Your task to perform on an android device: Open notification settings Image 0: 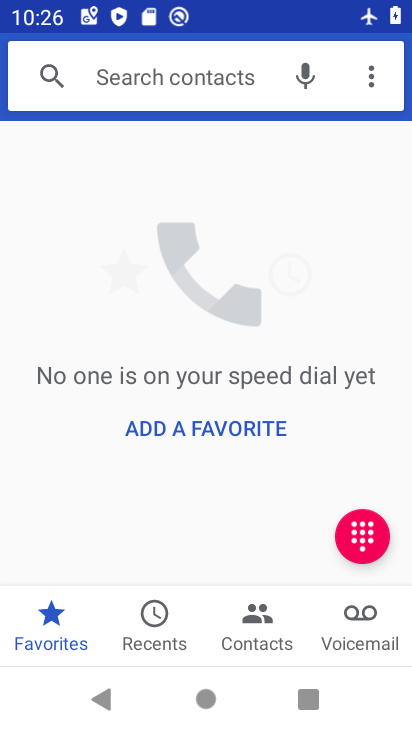
Step 0: press home button
Your task to perform on an android device: Open notification settings Image 1: 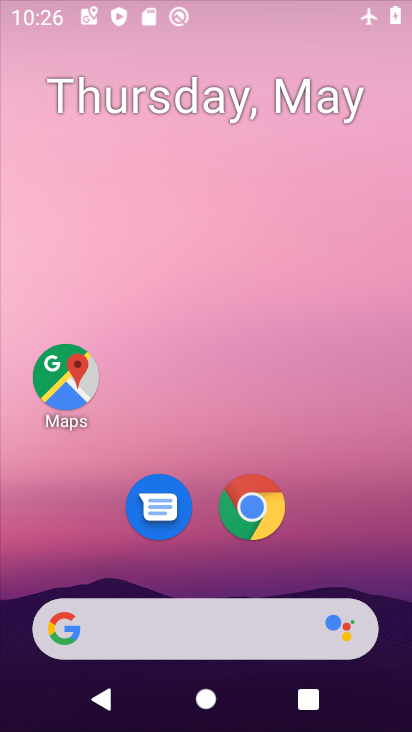
Step 1: drag from (158, 670) to (160, 102)
Your task to perform on an android device: Open notification settings Image 2: 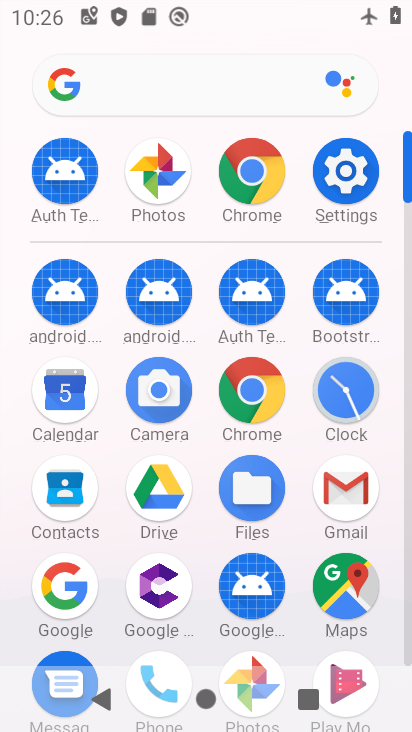
Step 2: click (363, 179)
Your task to perform on an android device: Open notification settings Image 3: 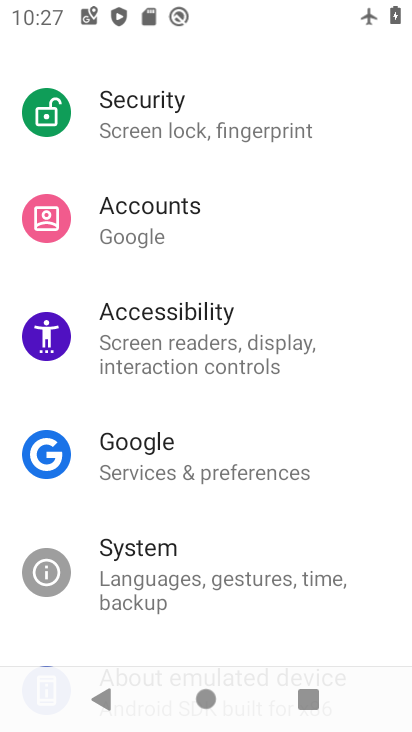
Step 3: drag from (179, 268) to (173, 487)
Your task to perform on an android device: Open notification settings Image 4: 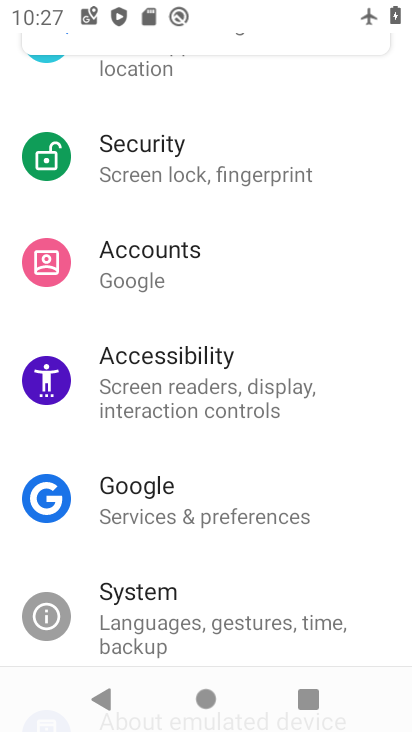
Step 4: drag from (192, 520) to (192, 128)
Your task to perform on an android device: Open notification settings Image 5: 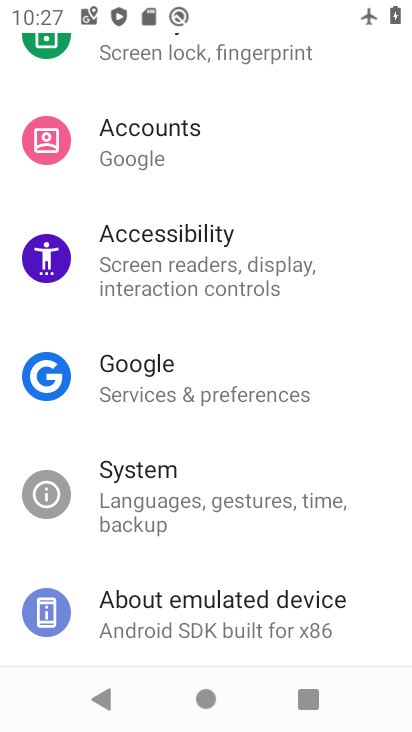
Step 5: drag from (191, 170) to (174, 693)
Your task to perform on an android device: Open notification settings Image 6: 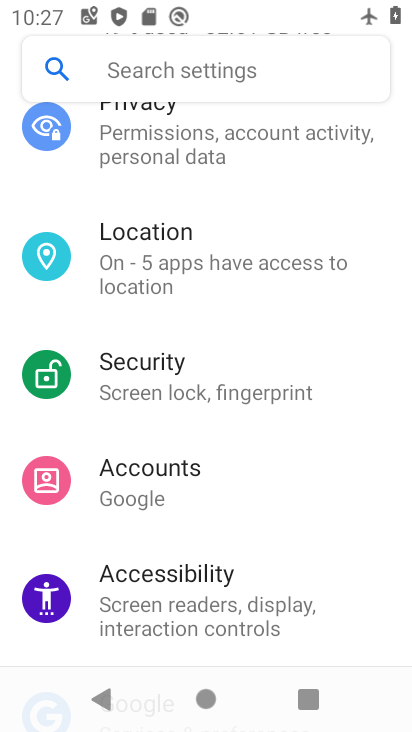
Step 6: drag from (266, 340) to (257, 718)
Your task to perform on an android device: Open notification settings Image 7: 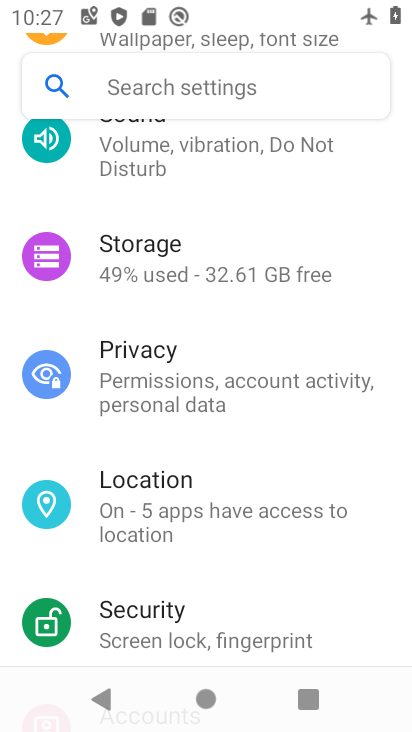
Step 7: drag from (246, 288) to (258, 730)
Your task to perform on an android device: Open notification settings Image 8: 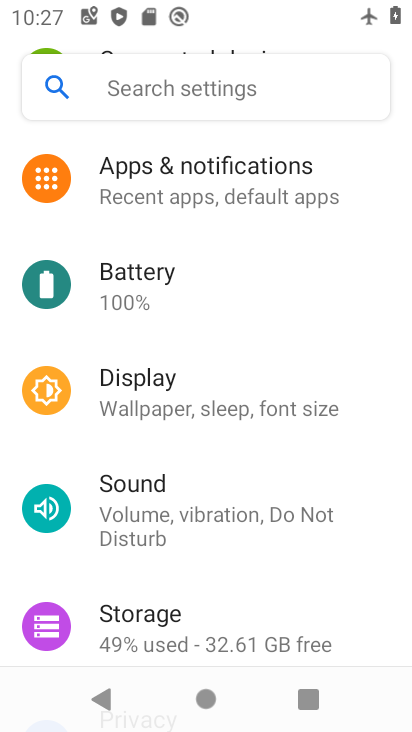
Step 8: click (267, 180)
Your task to perform on an android device: Open notification settings Image 9: 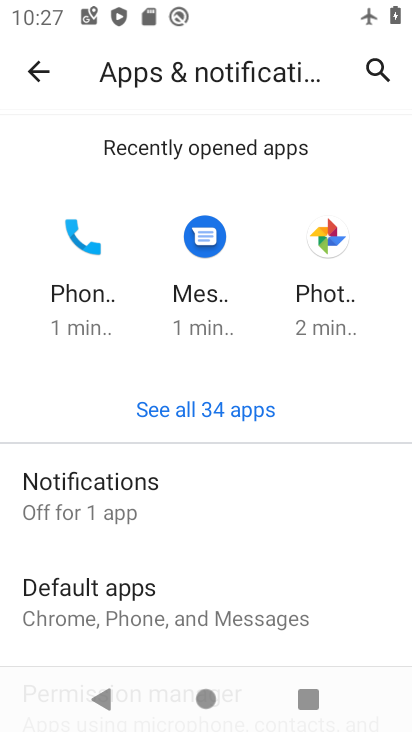
Step 9: click (224, 509)
Your task to perform on an android device: Open notification settings Image 10: 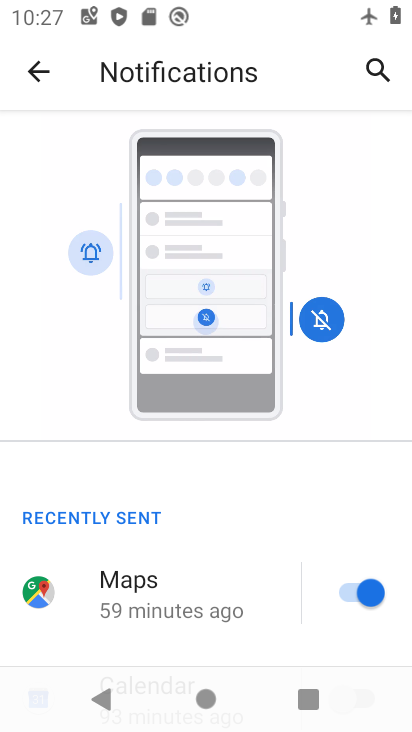
Step 10: task complete